Your task to perform on an android device: turn off priority inbox in the gmail app Image 0: 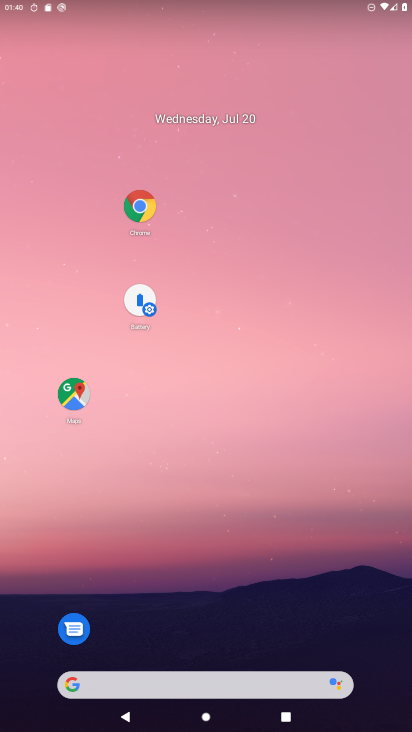
Step 0: drag from (149, 510) to (171, 131)
Your task to perform on an android device: turn off priority inbox in the gmail app Image 1: 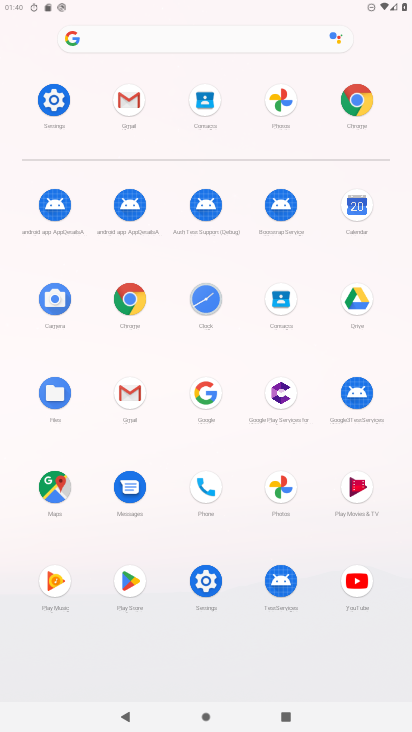
Step 1: click (129, 403)
Your task to perform on an android device: turn off priority inbox in the gmail app Image 2: 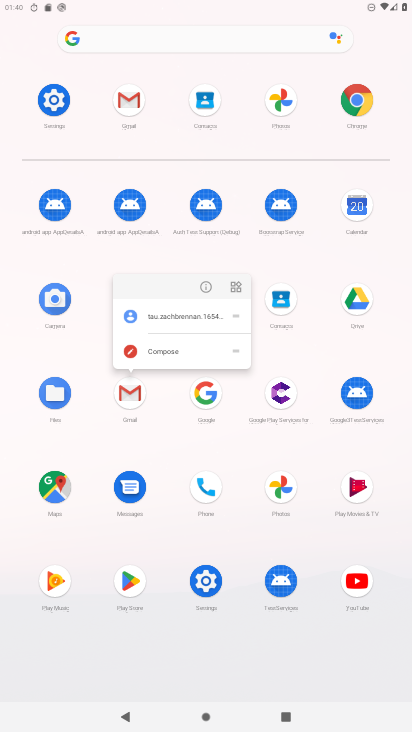
Step 2: click (203, 285)
Your task to perform on an android device: turn off priority inbox in the gmail app Image 3: 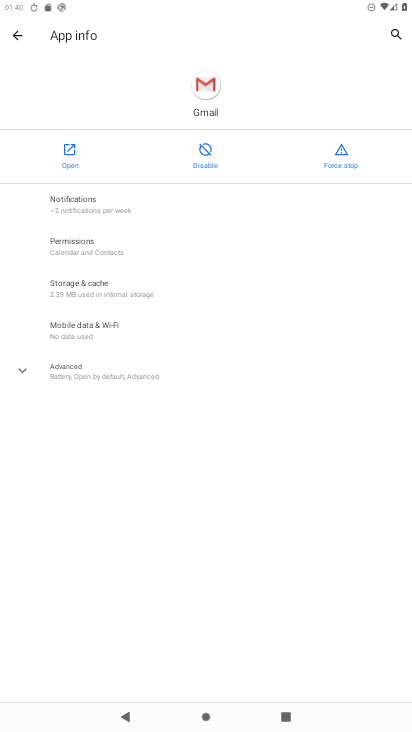
Step 3: click (70, 164)
Your task to perform on an android device: turn off priority inbox in the gmail app Image 4: 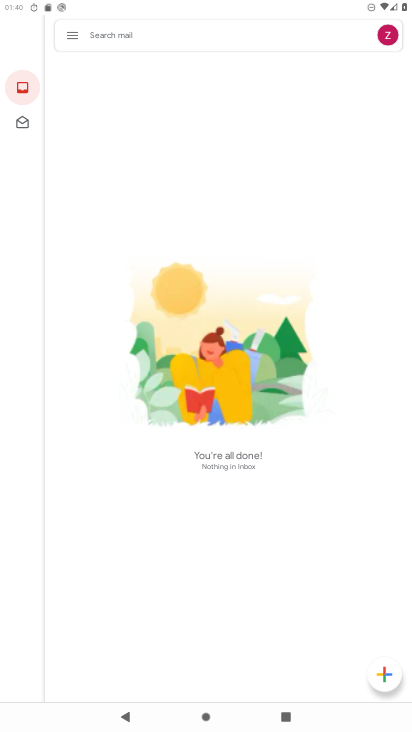
Step 4: drag from (310, 530) to (298, 326)
Your task to perform on an android device: turn off priority inbox in the gmail app Image 5: 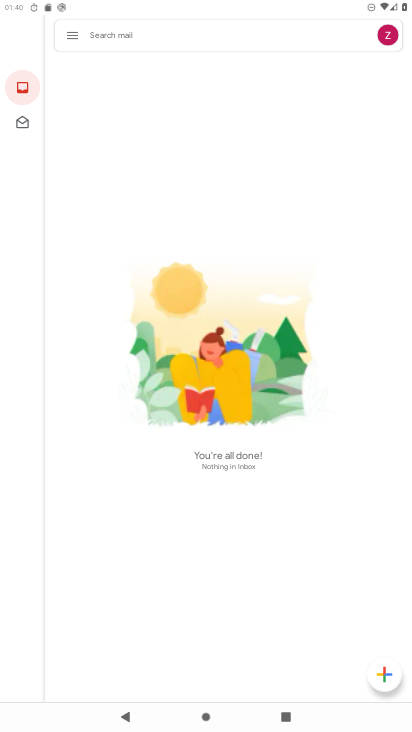
Step 5: click (38, 30)
Your task to perform on an android device: turn off priority inbox in the gmail app Image 6: 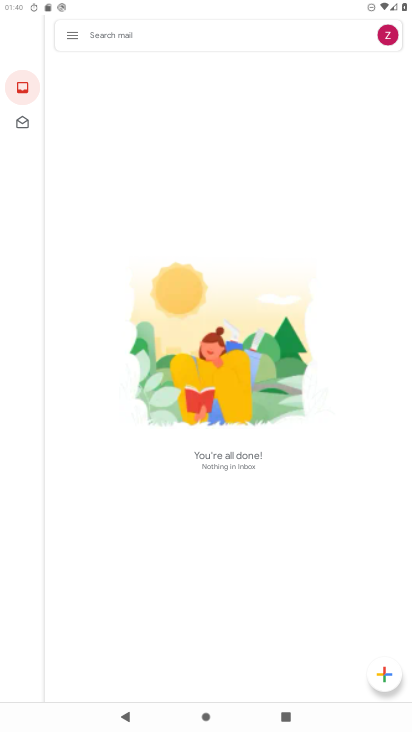
Step 6: click (63, 30)
Your task to perform on an android device: turn off priority inbox in the gmail app Image 7: 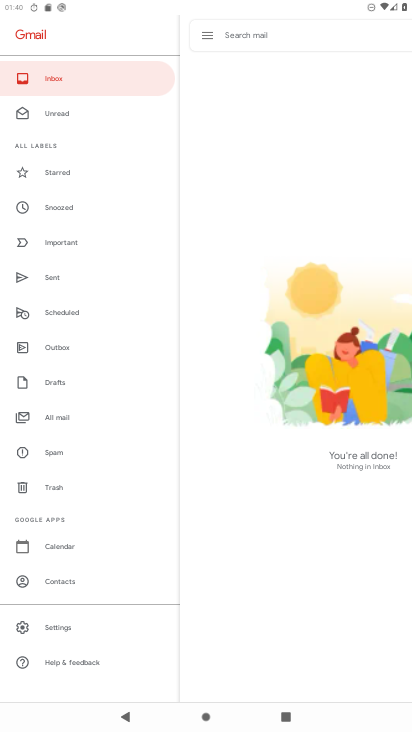
Step 7: click (48, 632)
Your task to perform on an android device: turn off priority inbox in the gmail app Image 8: 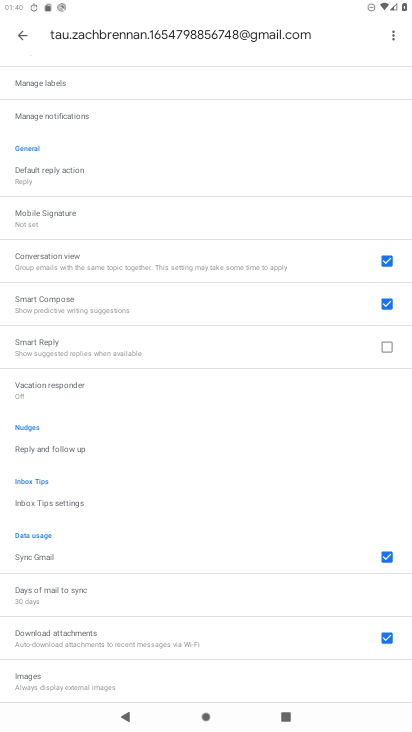
Step 8: drag from (142, 136) to (348, 725)
Your task to perform on an android device: turn off priority inbox in the gmail app Image 9: 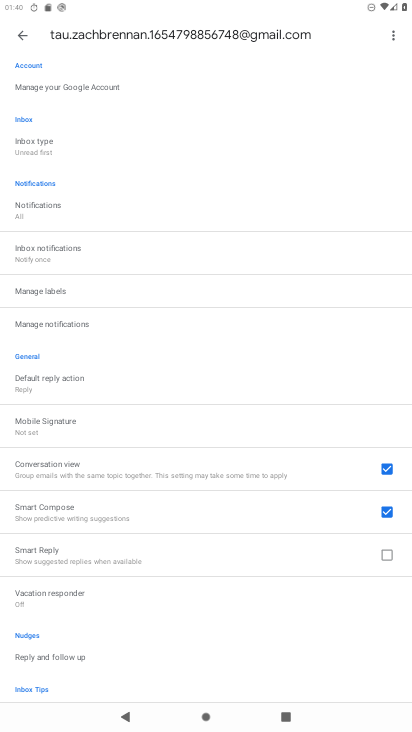
Step 9: click (61, 138)
Your task to perform on an android device: turn off priority inbox in the gmail app Image 10: 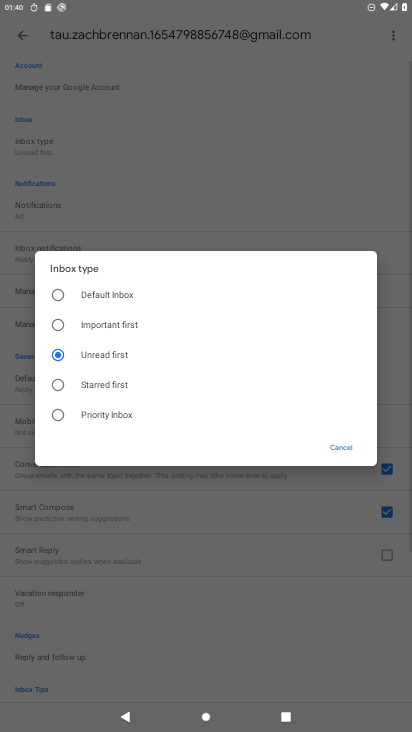
Step 10: click (99, 413)
Your task to perform on an android device: turn off priority inbox in the gmail app Image 11: 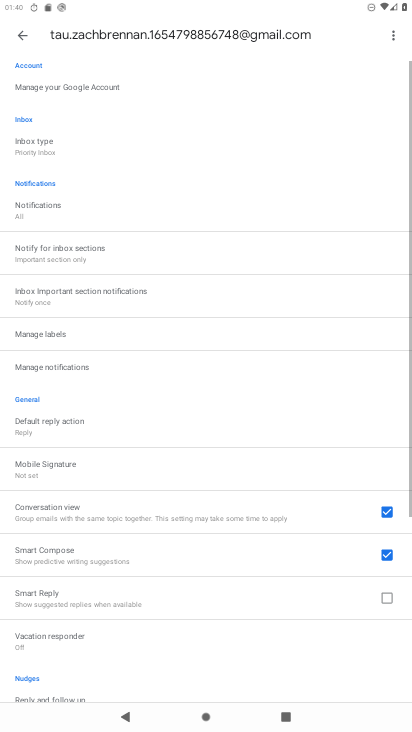
Step 11: click (51, 147)
Your task to perform on an android device: turn off priority inbox in the gmail app Image 12: 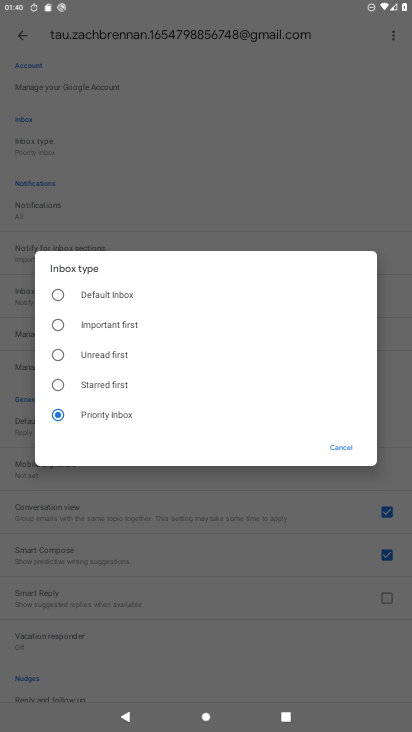
Step 12: click (56, 293)
Your task to perform on an android device: turn off priority inbox in the gmail app Image 13: 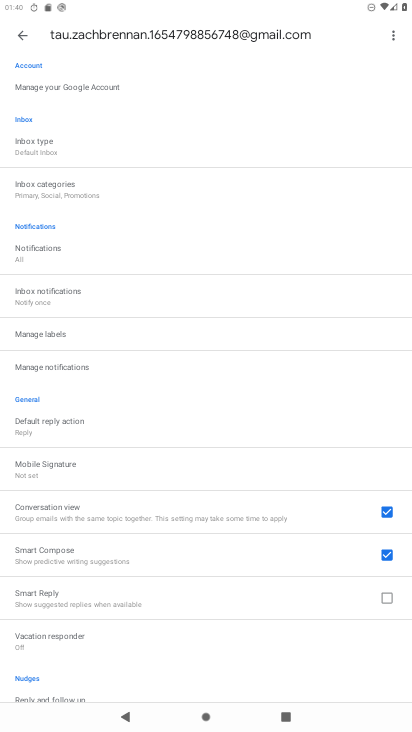
Step 13: task complete